Your task to perform on an android device: Go to display settings Image 0: 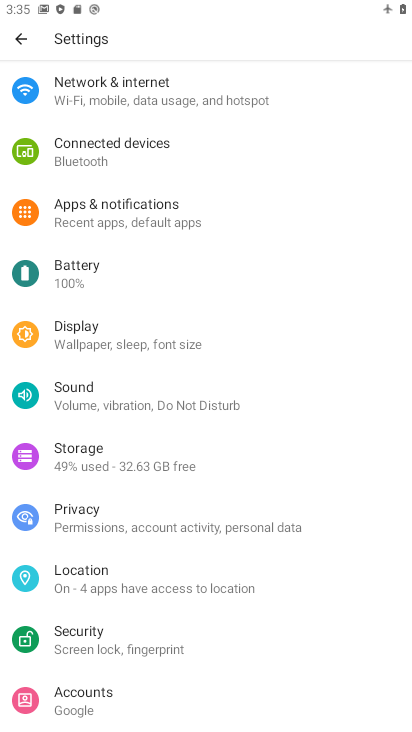
Step 0: click (70, 333)
Your task to perform on an android device: Go to display settings Image 1: 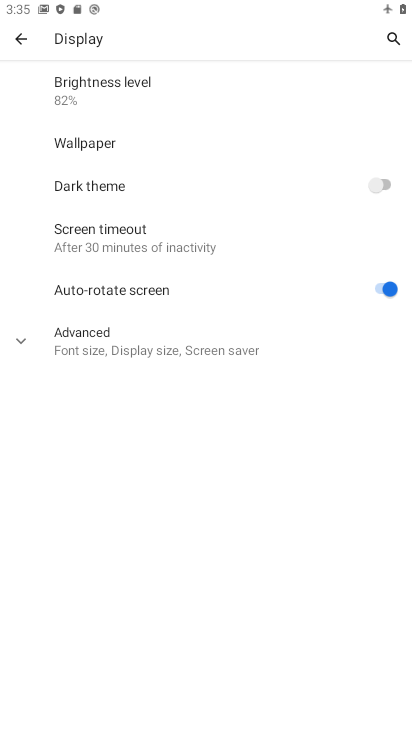
Step 1: click (23, 343)
Your task to perform on an android device: Go to display settings Image 2: 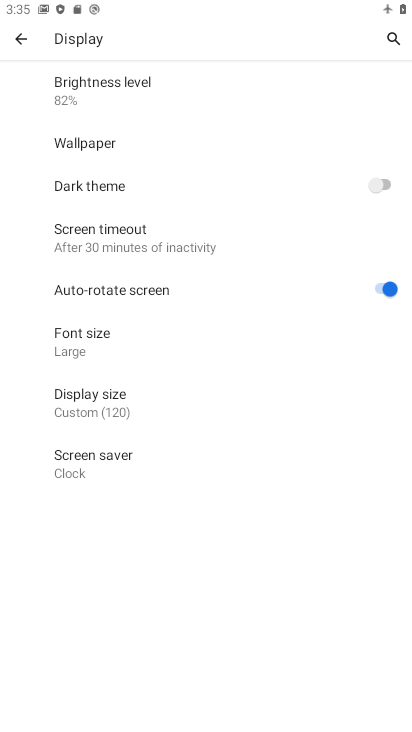
Step 2: task complete